Your task to perform on an android device: change your default location settings in chrome Image 0: 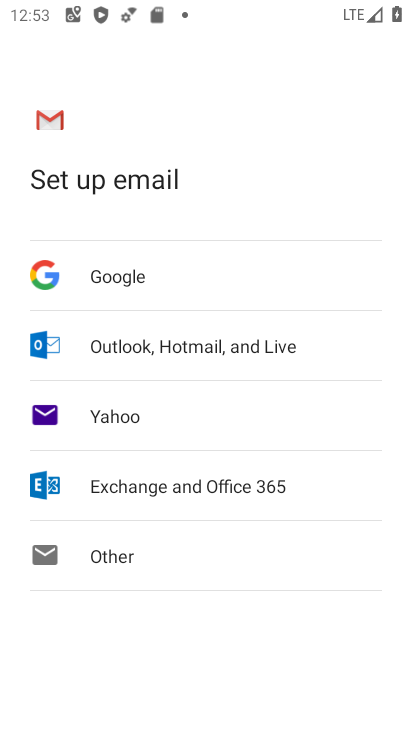
Step 0: press home button
Your task to perform on an android device: change your default location settings in chrome Image 1: 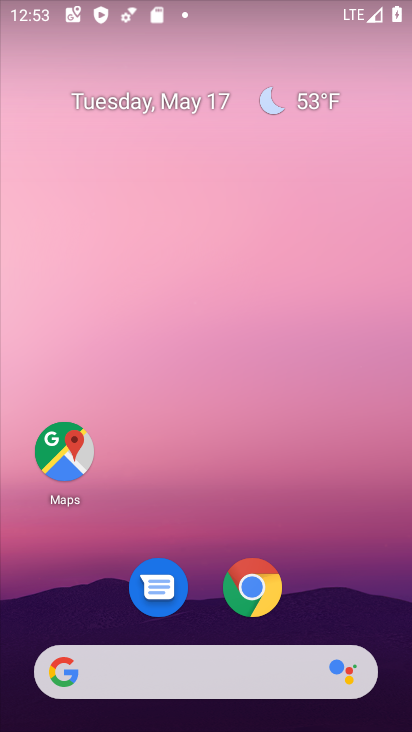
Step 1: drag from (212, 629) to (178, 43)
Your task to perform on an android device: change your default location settings in chrome Image 2: 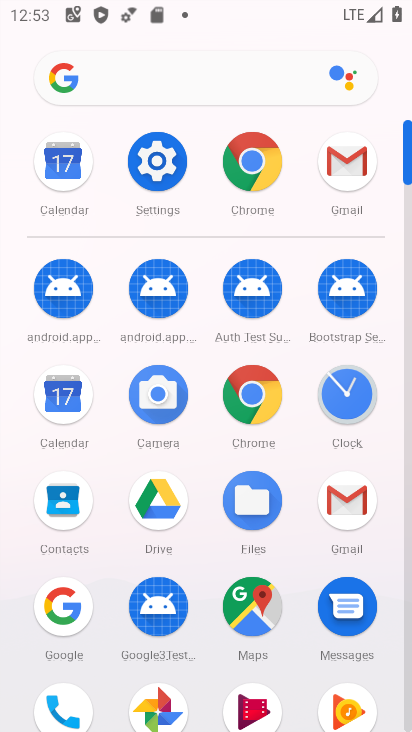
Step 2: click (242, 182)
Your task to perform on an android device: change your default location settings in chrome Image 3: 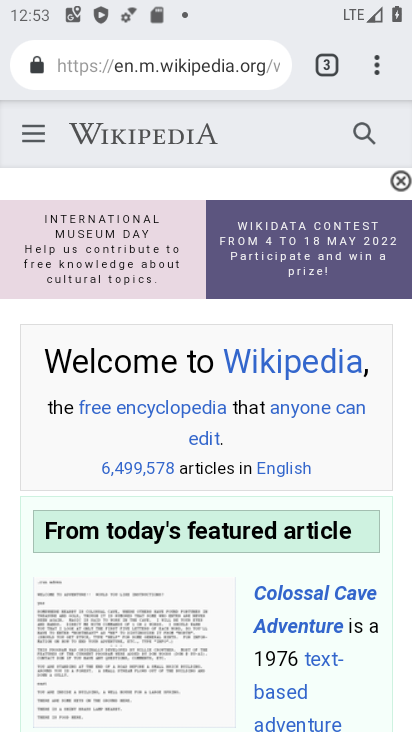
Step 3: click (374, 63)
Your task to perform on an android device: change your default location settings in chrome Image 4: 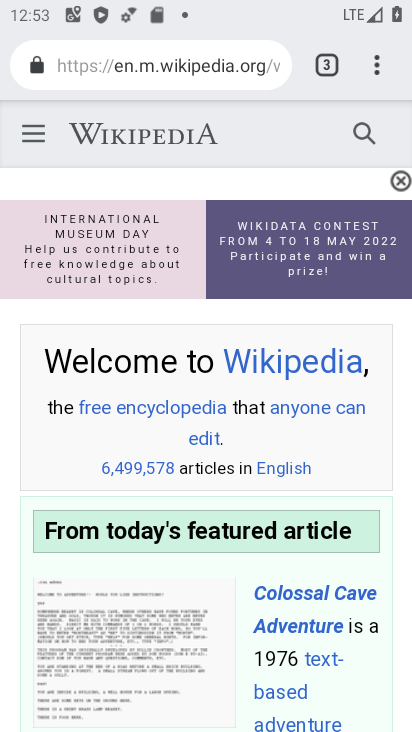
Step 4: drag from (370, 71) to (172, 642)
Your task to perform on an android device: change your default location settings in chrome Image 5: 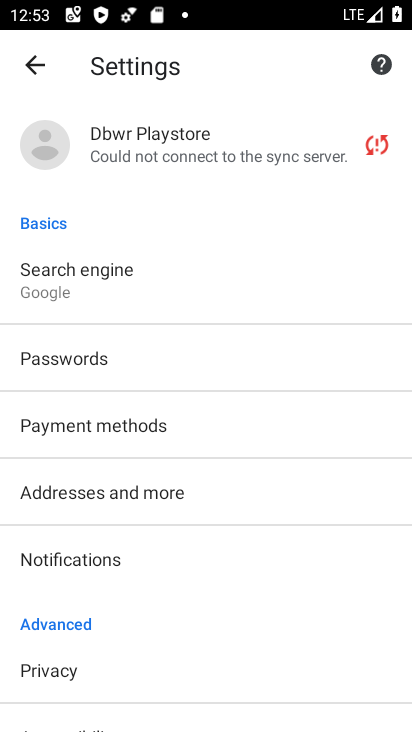
Step 5: drag from (178, 622) to (170, 311)
Your task to perform on an android device: change your default location settings in chrome Image 6: 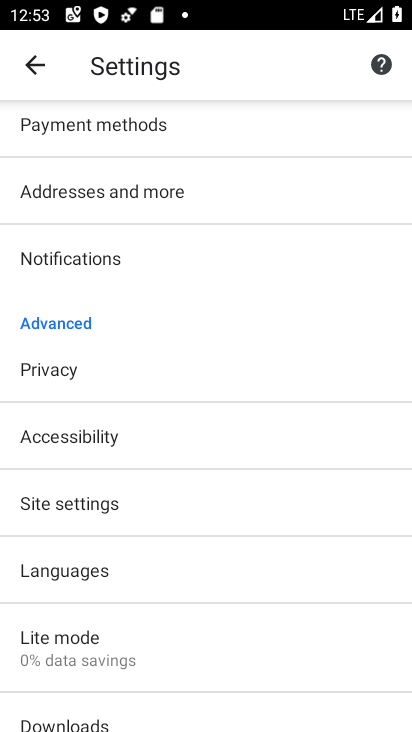
Step 6: click (102, 502)
Your task to perform on an android device: change your default location settings in chrome Image 7: 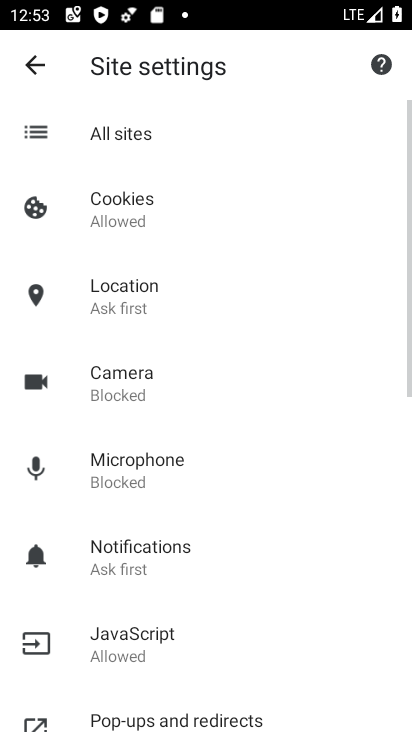
Step 7: click (106, 300)
Your task to perform on an android device: change your default location settings in chrome Image 8: 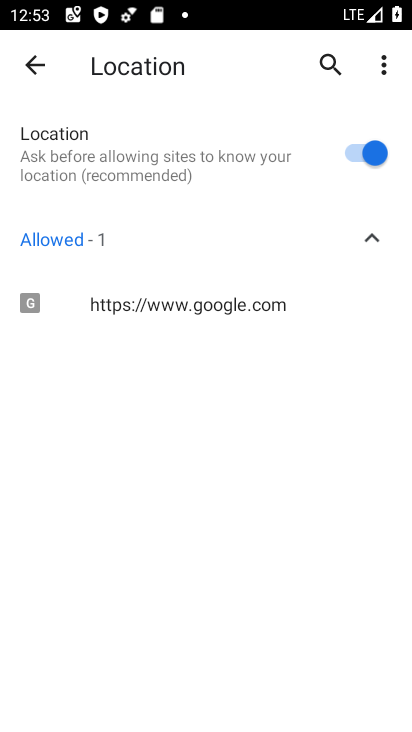
Step 8: click (345, 155)
Your task to perform on an android device: change your default location settings in chrome Image 9: 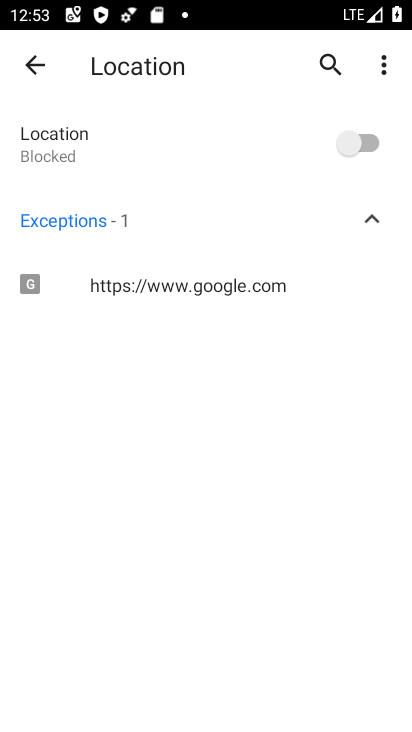
Step 9: task complete